Your task to perform on an android device: change the clock display to analog Image 0: 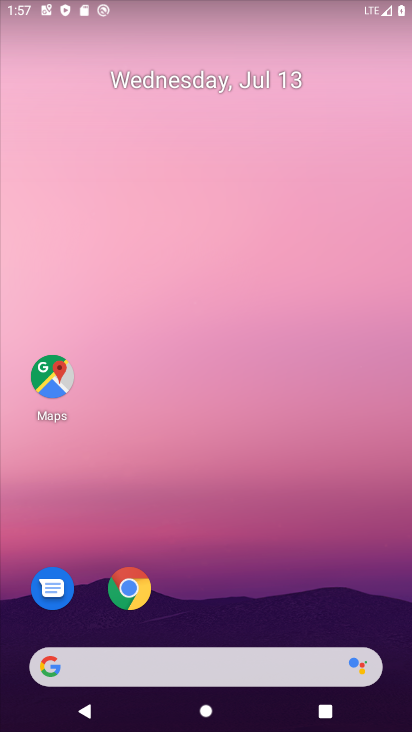
Step 0: drag from (394, 704) to (370, 115)
Your task to perform on an android device: change the clock display to analog Image 1: 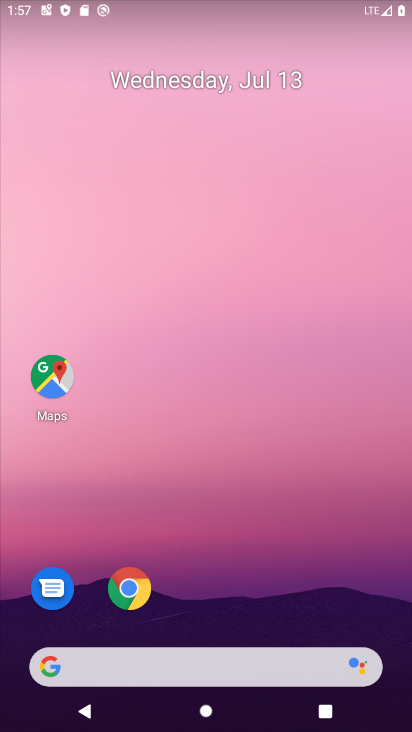
Step 1: drag from (404, 688) to (356, 168)
Your task to perform on an android device: change the clock display to analog Image 2: 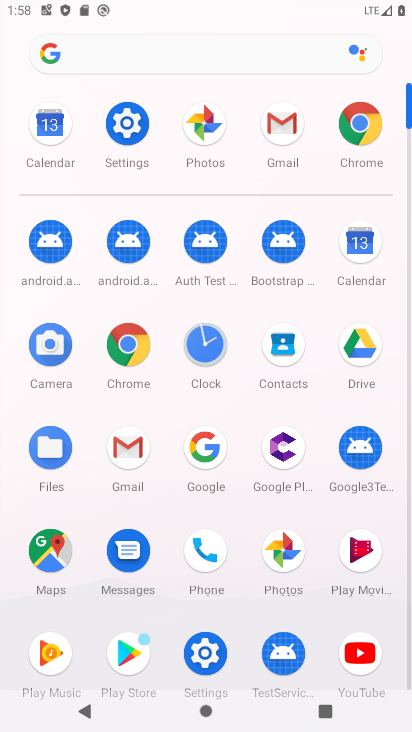
Step 2: click (213, 343)
Your task to perform on an android device: change the clock display to analog Image 3: 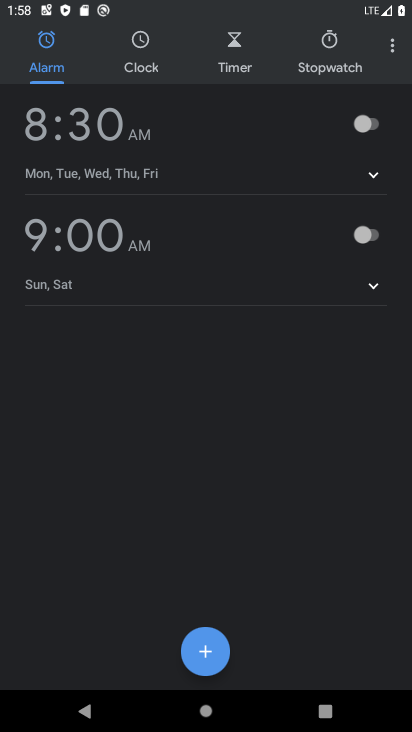
Step 3: click (393, 49)
Your task to perform on an android device: change the clock display to analog Image 4: 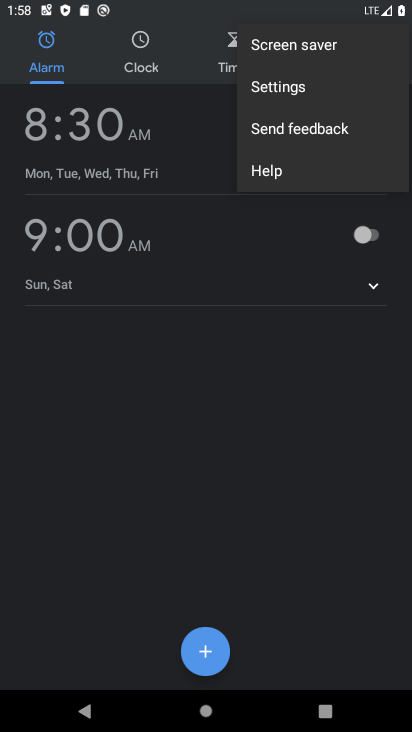
Step 4: click (299, 82)
Your task to perform on an android device: change the clock display to analog Image 5: 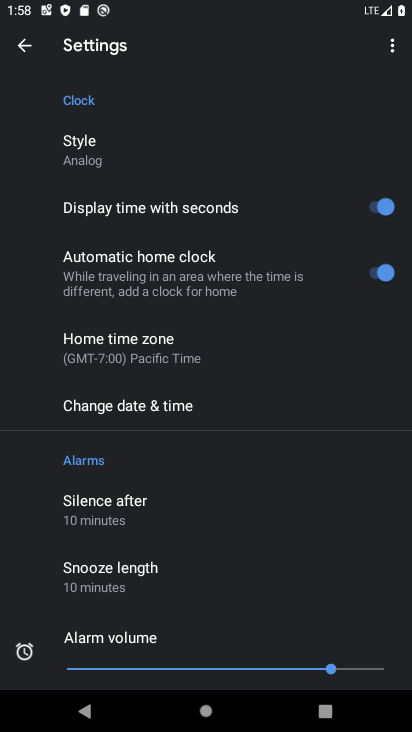
Step 5: click (89, 152)
Your task to perform on an android device: change the clock display to analog Image 6: 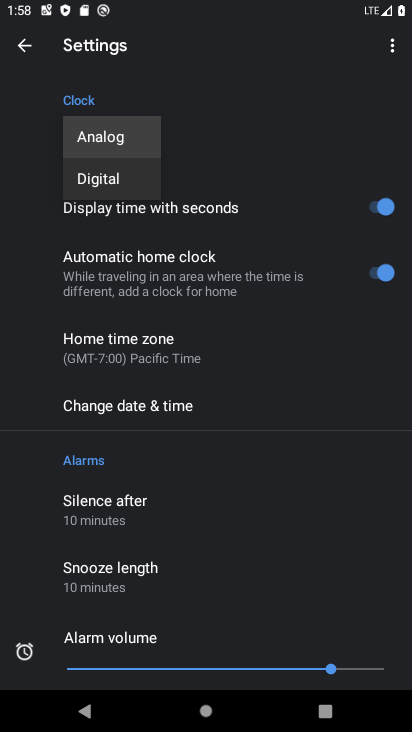
Step 6: click (108, 179)
Your task to perform on an android device: change the clock display to analog Image 7: 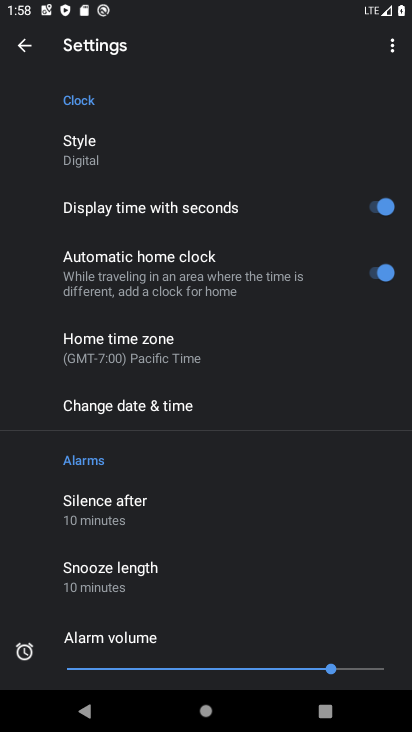
Step 7: task complete